Your task to perform on an android device: toggle improve location accuracy Image 0: 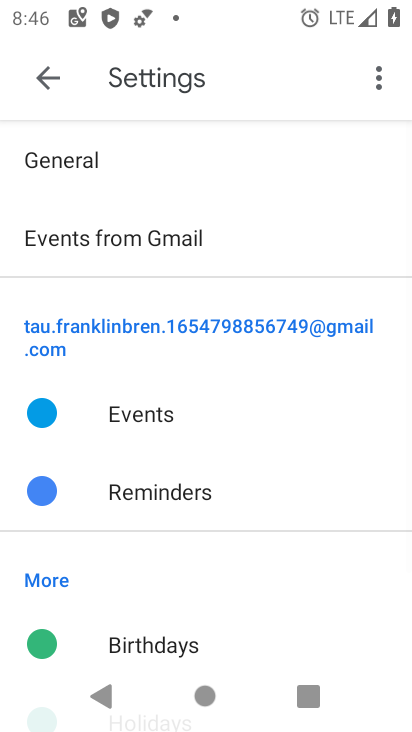
Step 0: press back button
Your task to perform on an android device: toggle improve location accuracy Image 1: 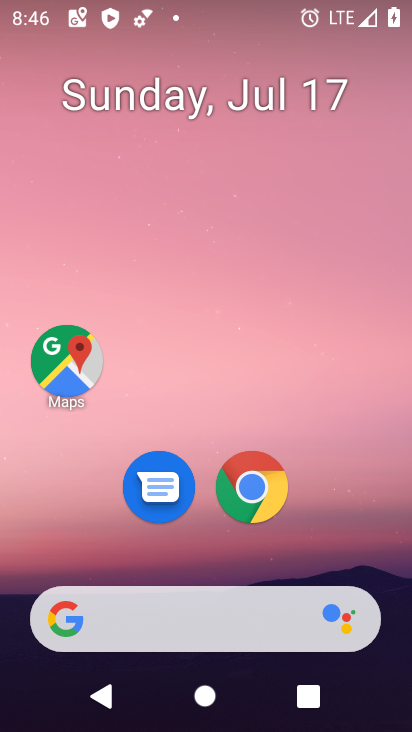
Step 1: drag from (140, 572) to (227, 64)
Your task to perform on an android device: toggle improve location accuracy Image 2: 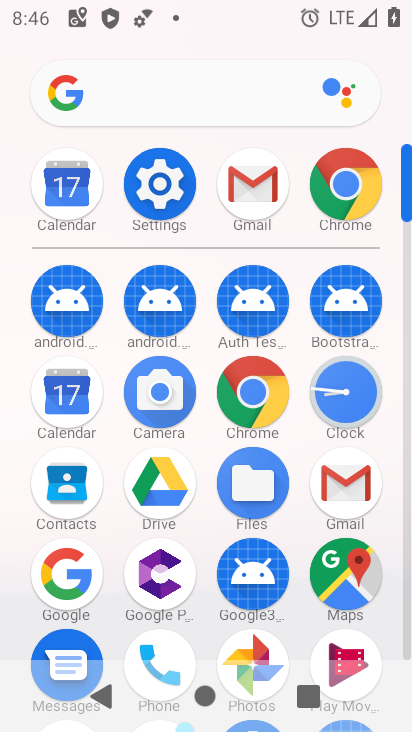
Step 2: click (163, 182)
Your task to perform on an android device: toggle improve location accuracy Image 3: 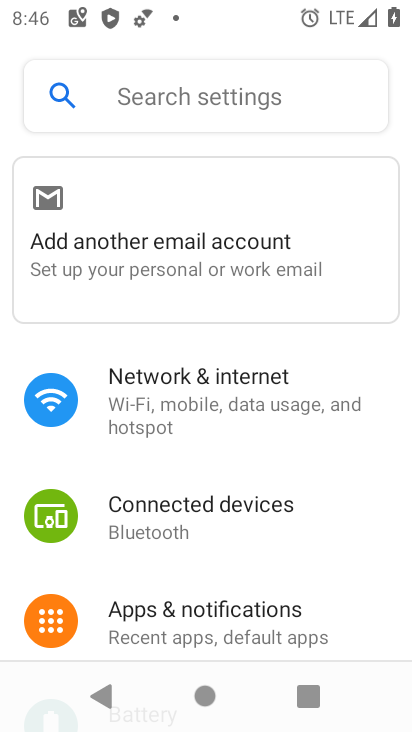
Step 3: drag from (154, 590) to (183, 110)
Your task to perform on an android device: toggle improve location accuracy Image 4: 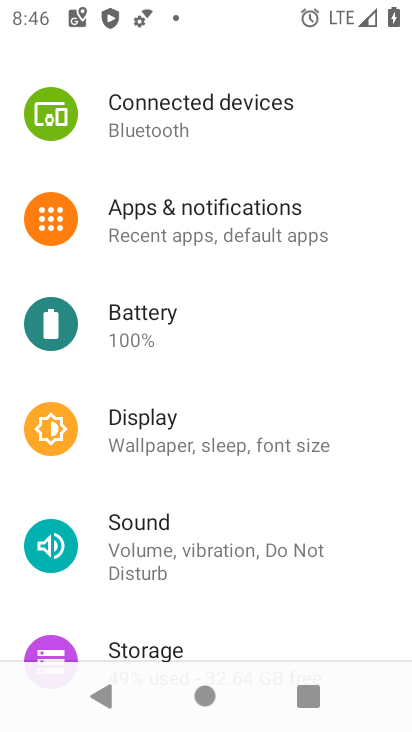
Step 4: drag from (159, 559) to (251, 161)
Your task to perform on an android device: toggle improve location accuracy Image 5: 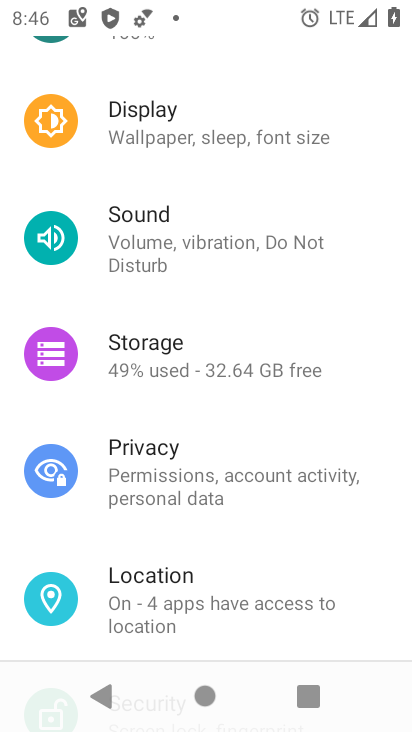
Step 5: click (135, 583)
Your task to perform on an android device: toggle improve location accuracy Image 6: 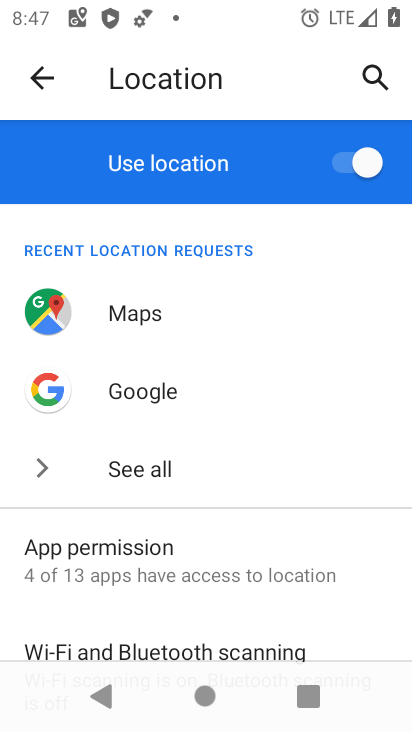
Step 6: drag from (194, 570) to (224, 120)
Your task to perform on an android device: toggle improve location accuracy Image 7: 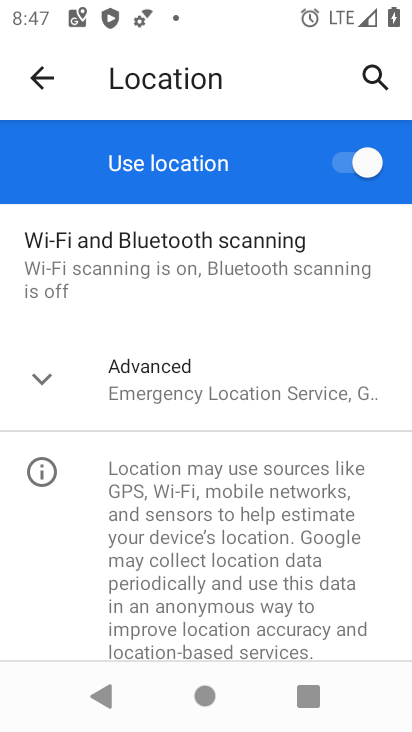
Step 7: click (148, 369)
Your task to perform on an android device: toggle improve location accuracy Image 8: 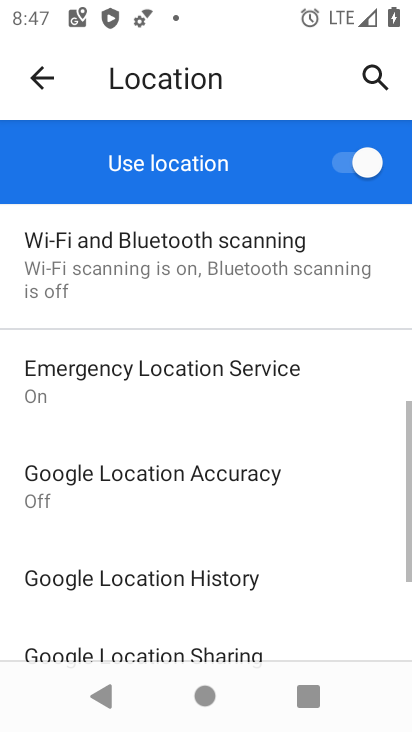
Step 8: click (180, 496)
Your task to perform on an android device: toggle improve location accuracy Image 9: 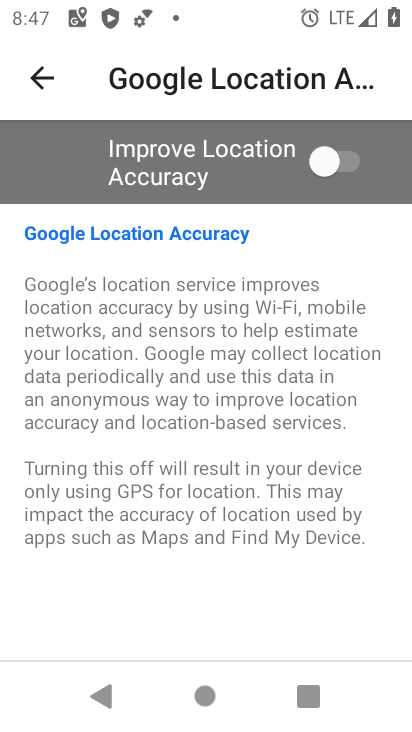
Step 9: click (342, 152)
Your task to perform on an android device: toggle improve location accuracy Image 10: 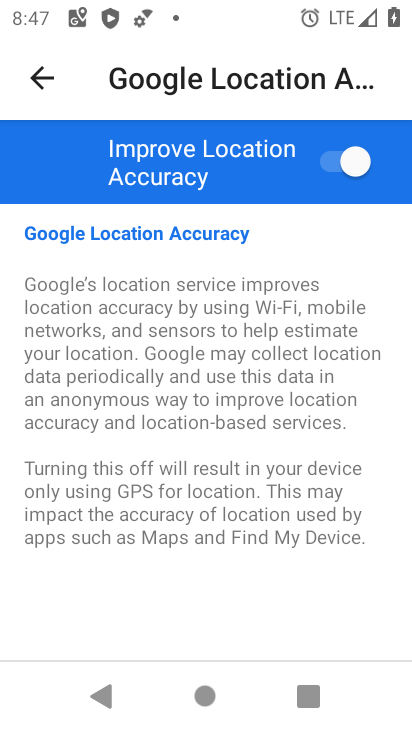
Step 10: task complete